Your task to perform on an android device: Open the web browser Image 0: 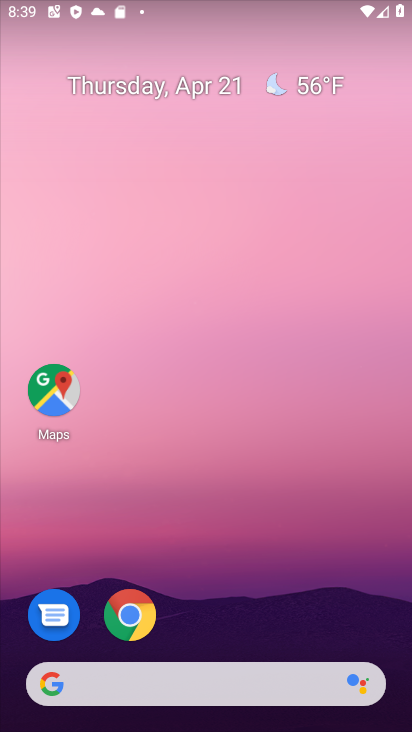
Step 0: drag from (247, 577) to (232, 106)
Your task to perform on an android device: Open the web browser Image 1: 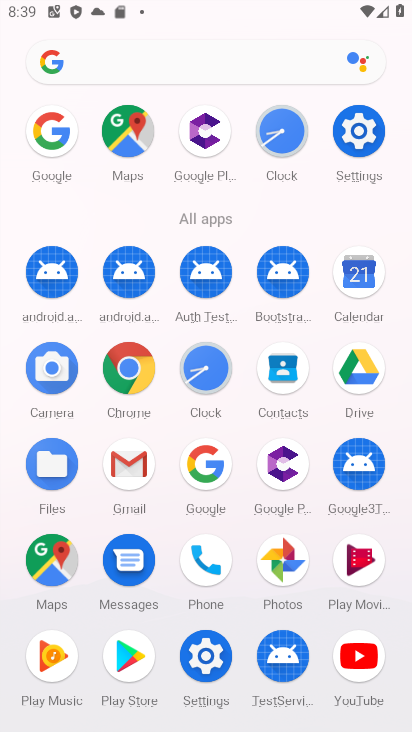
Step 1: click (52, 135)
Your task to perform on an android device: Open the web browser Image 2: 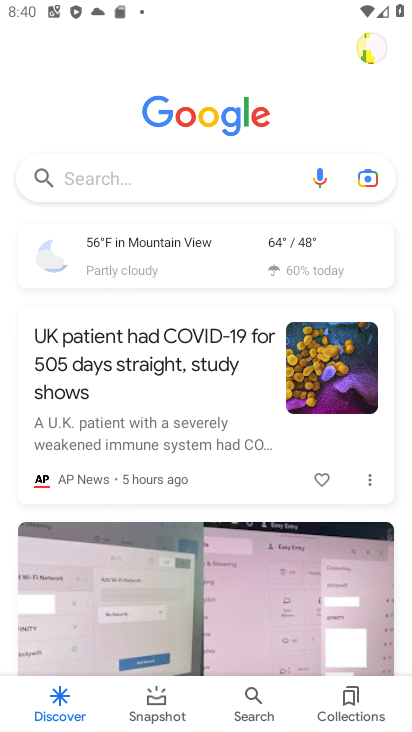
Step 2: task complete